Your task to perform on an android device: Set the phone to "Do not disturb". Image 0: 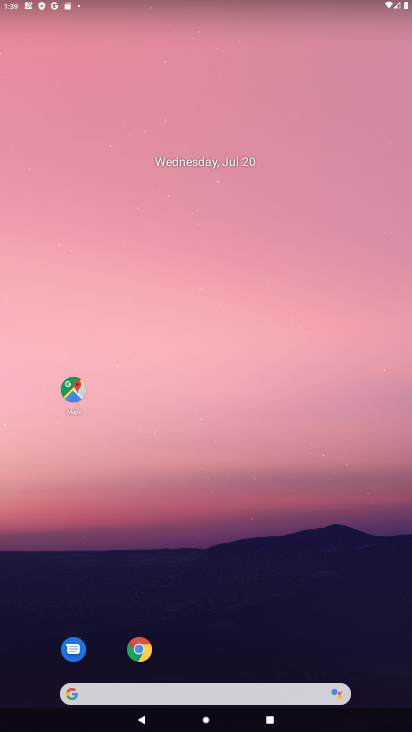
Step 0: drag from (334, 660) to (309, 99)
Your task to perform on an android device: Set the phone to "Do not disturb". Image 1: 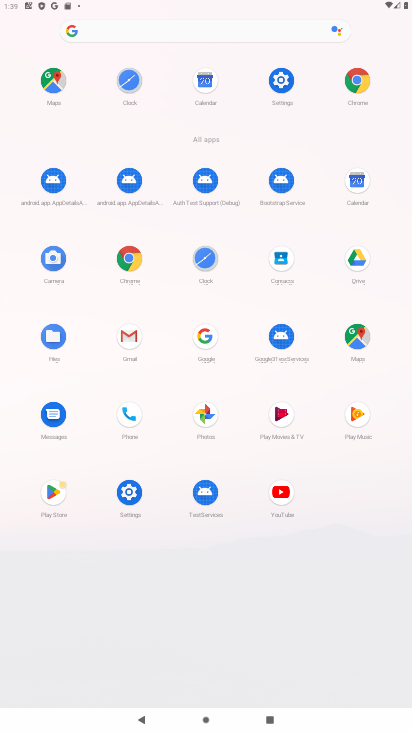
Step 1: click (279, 86)
Your task to perform on an android device: Set the phone to "Do not disturb". Image 2: 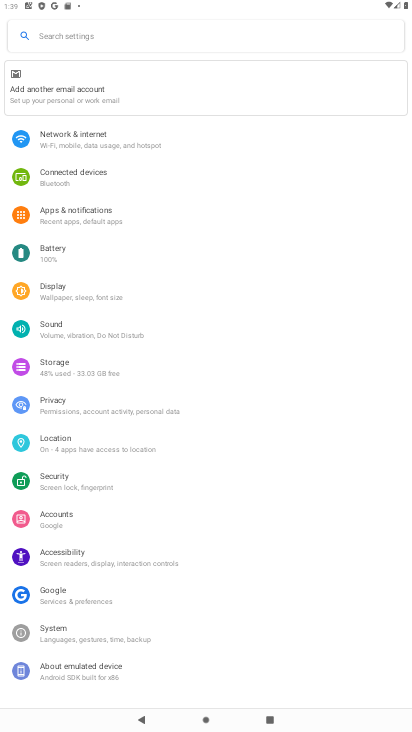
Step 2: click (87, 338)
Your task to perform on an android device: Set the phone to "Do not disturb". Image 3: 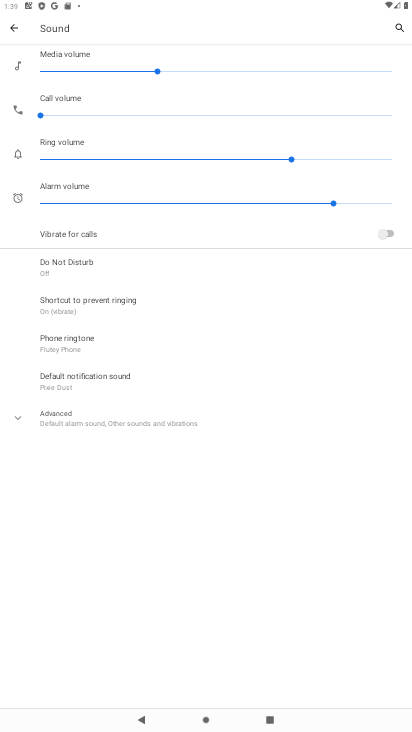
Step 3: click (96, 264)
Your task to perform on an android device: Set the phone to "Do not disturb". Image 4: 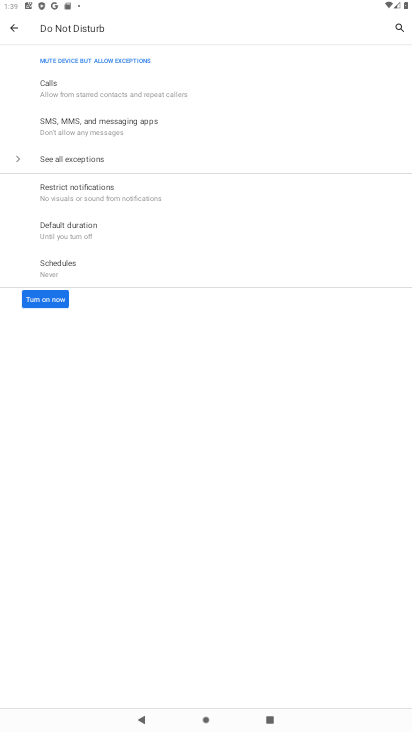
Step 4: click (38, 297)
Your task to perform on an android device: Set the phone to "Do not disturb". Image 5: 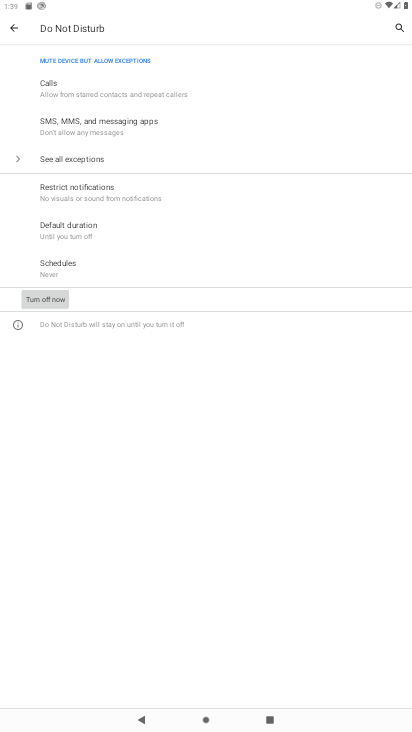
Step 5: task complete